Your task to perform on an android device: Clear all items from cart on ebay. Search for "acer nitro" on ebay, select the first entry, add it to the cart, then select checkout. Image 0: 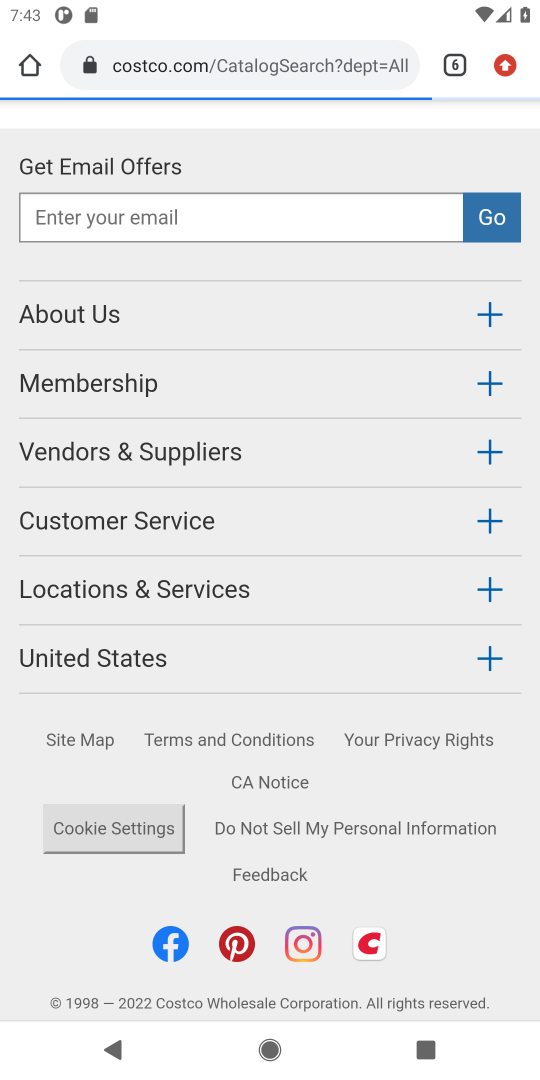
Step 0: press home button
Your task to perform on an android device: Clear all items from cart on ebay. Search for "acer nitro" on ebay, select the first entry, add it to the cart, then select checkout. Image 1: 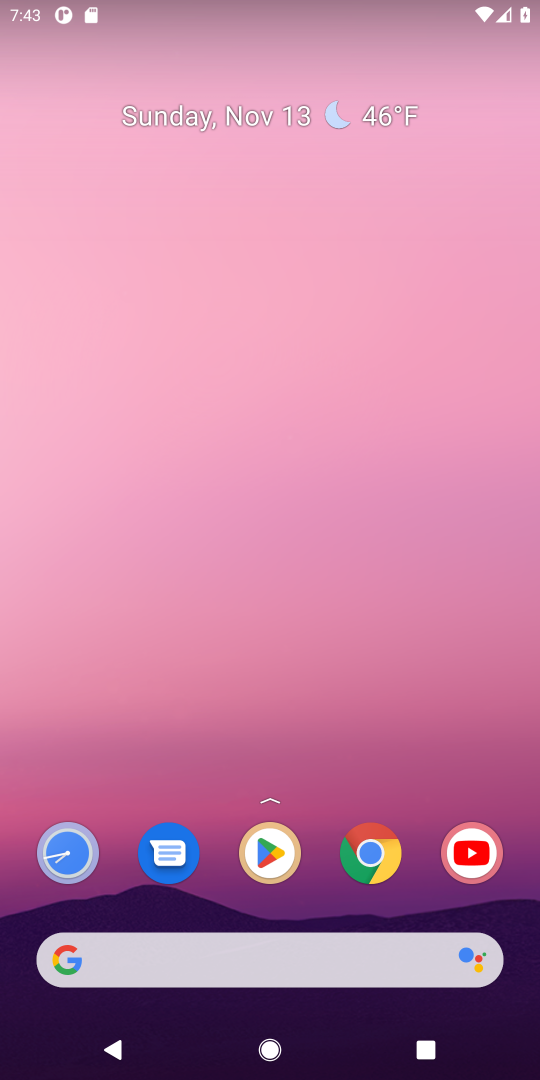
Step 1: click (90, 956)
Your task to perform on an android device: Clear all items from cart on ebay. Search for "acer nitro" on ebay, select the first entry, add it to the cart, then select checkout. Image 2: 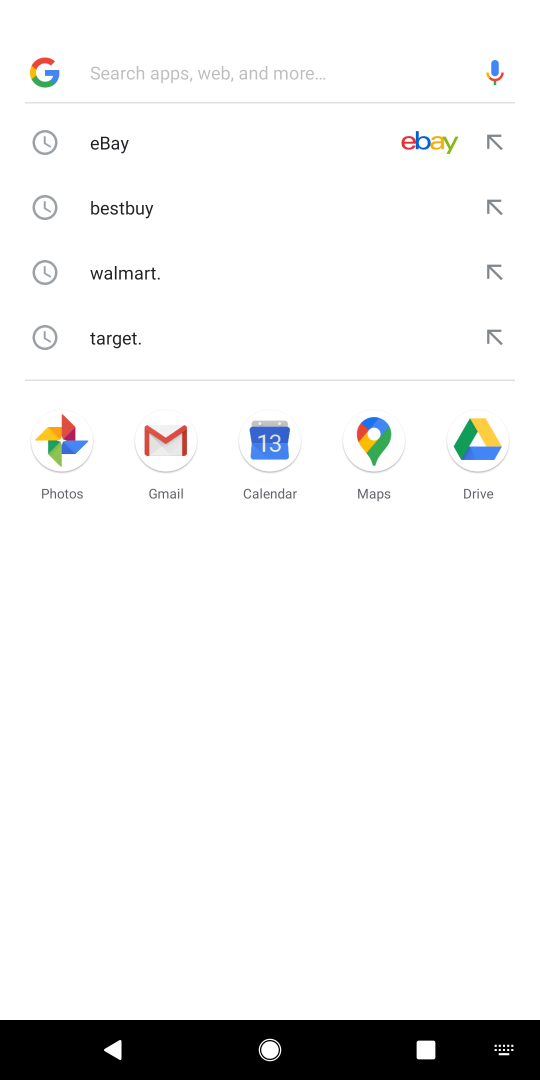
Step 2: click (141, 145)
Your task to perform on an android device: Clear all items from cart on ebay. Search for "acer nitro" on ebay, select the first entry, add it to the cart, then select checkout. Image 3: 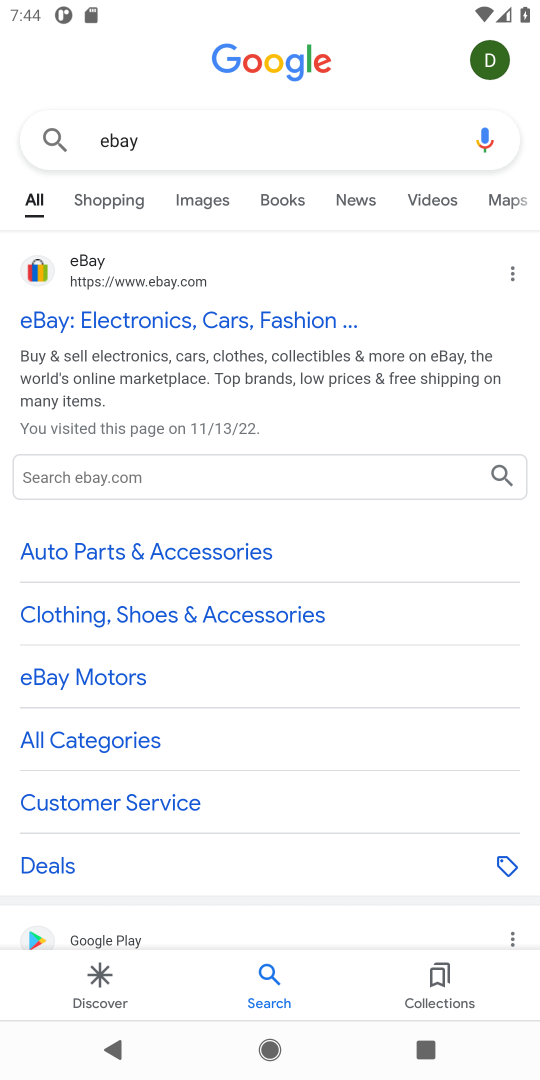
Step 3: click (229, 318)
Your task to perform on an android device: Clear all items from cart on ebay. Search for "acer nitro" on ebay, select the first entry, add it to the cart, then select checkout. Image 4: 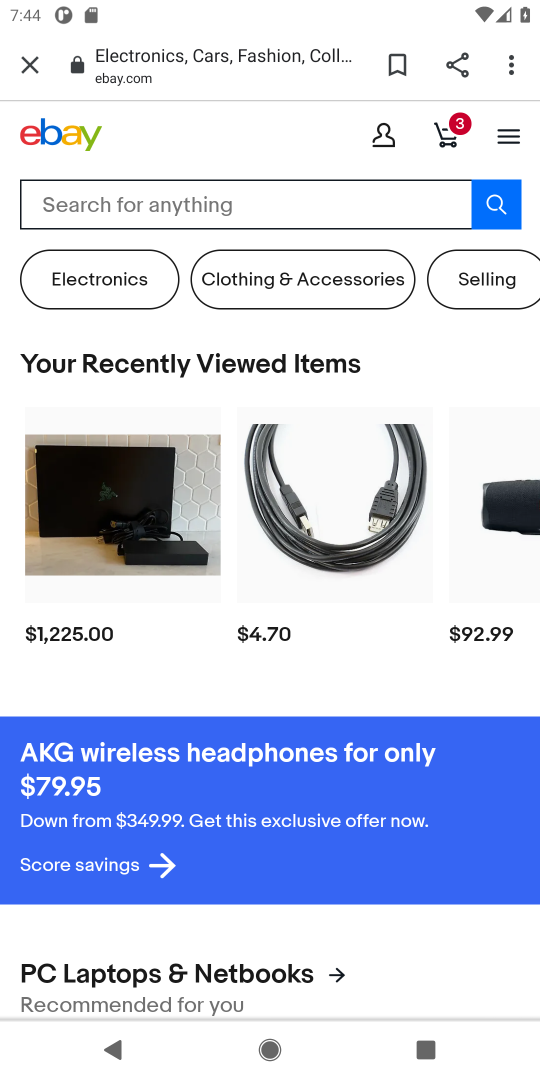
Step 4: click (453, 130)
Your task to perform on an android device: Clear all items from cart on ebay. Search for "acer nitro" on ebay, select the first entry, add it to the cart, then select checkout. Image 5: 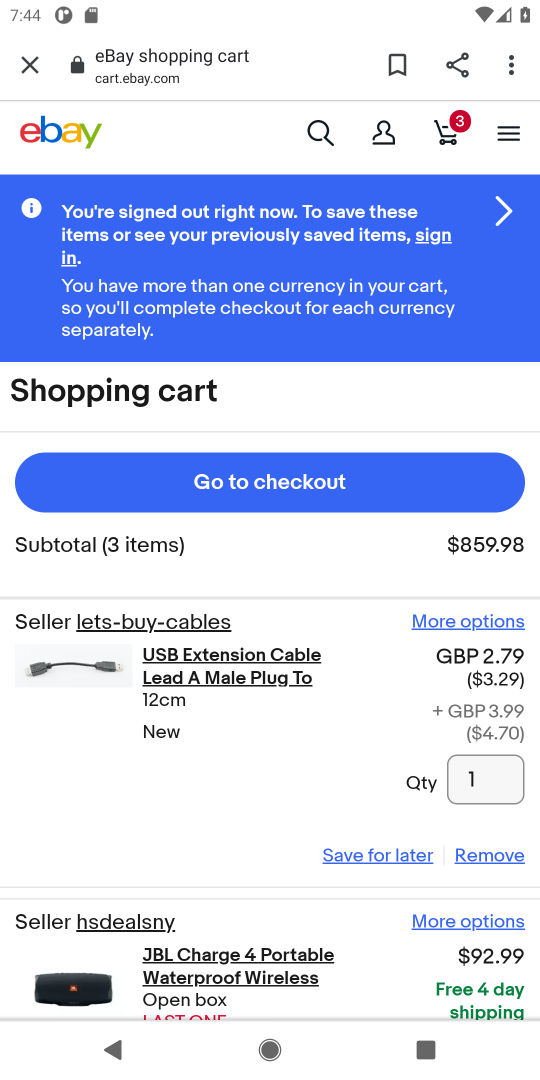
Step 5: click (503, 857)
Your task to perform on an android device: Clear all items from cart on ebay. Search for "acer nitro" on ebay, select the first entry, add it to the cart, then select checkout. Image 6: 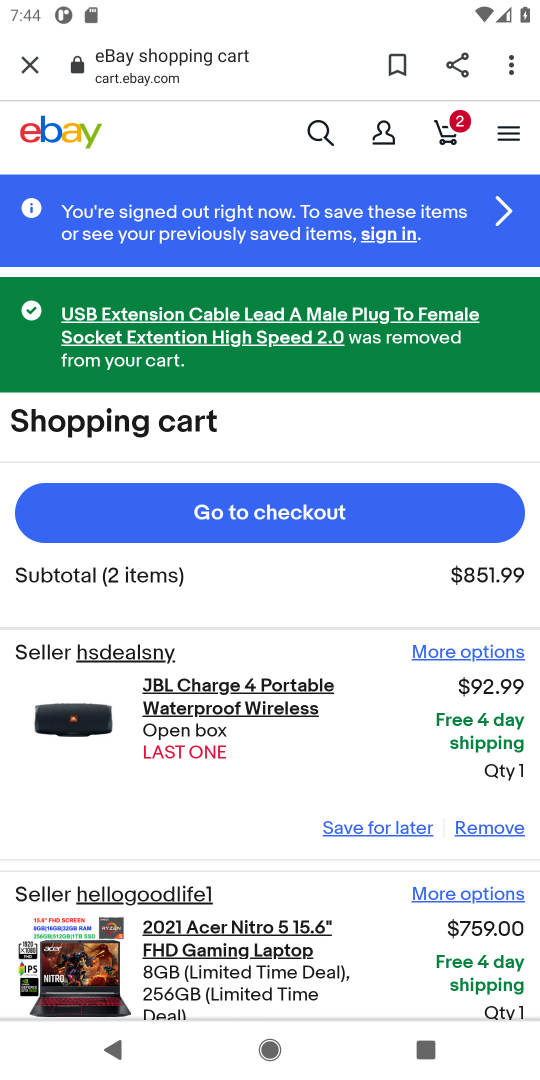
Step 6: click (486, 830)
Your task to perform on an android device: Clear all items from cart on ebay. Search for "acer nitro" on ebay, select the first entry, add it to the cart, then select checkout. Image 7: 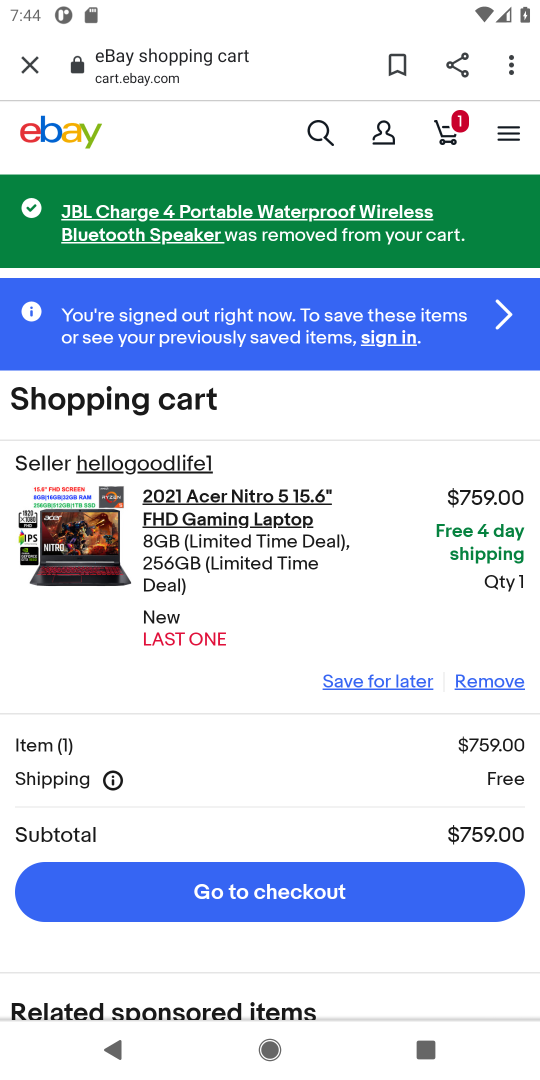
Step 7: click (474, 673)
Your task to perform on an android device: Clear all items from cart on ebay. Search for "acer nitro" on ebay, select the first entry, add it to the cart, then select checkout. Image 8: 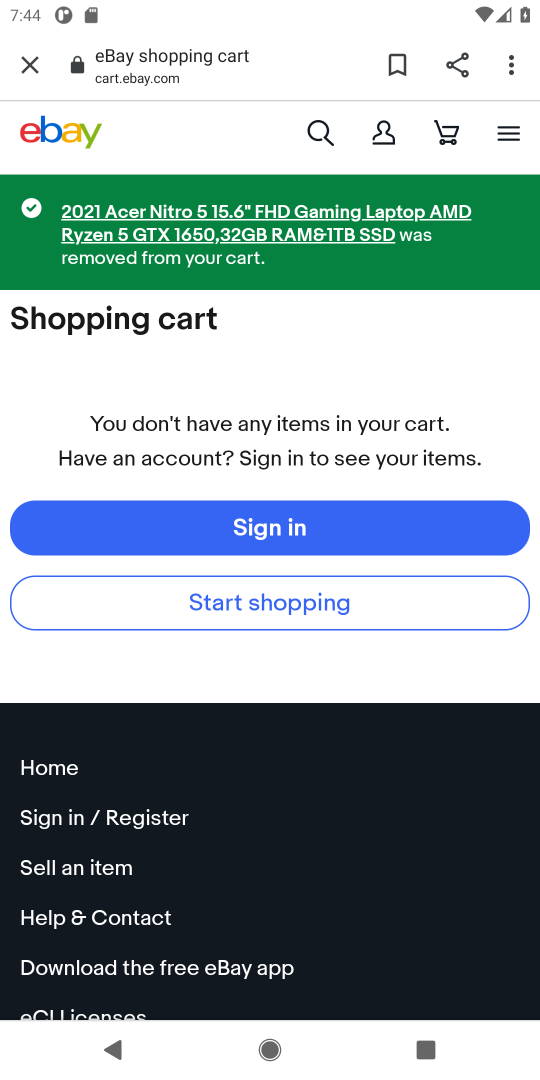
Step 8: click (318, 129)
Your task to perform on an android device: Clear all items from cart on ebay. Search for "acer nitro" on ebay, select the first entry, add it to the cart, then select checkout. Image 9: 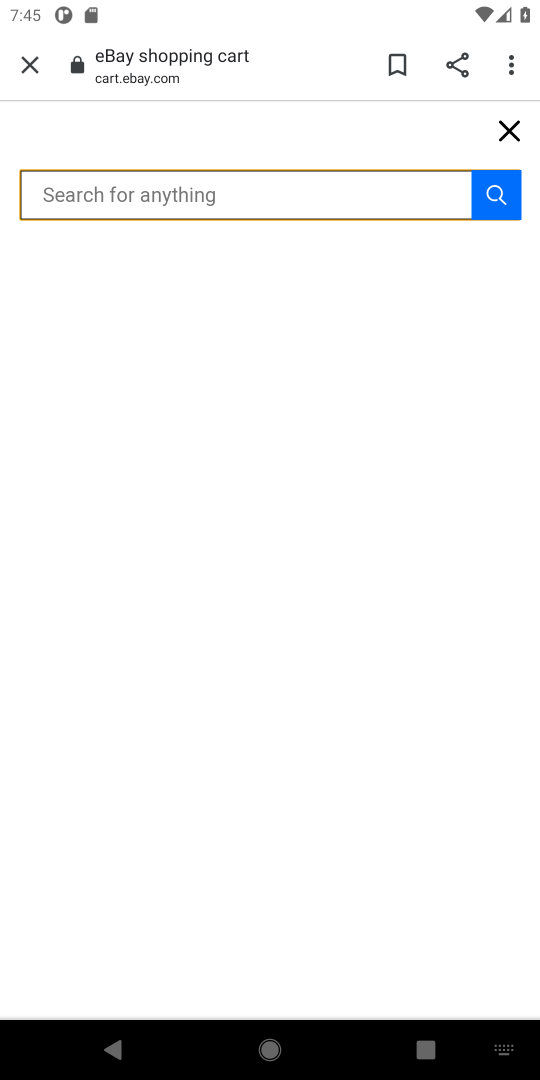
Step 9: type "acer nitro"
Your task to perform on an android device: Clear all items from cart on ebay. Search for "acer nitro" on ebay, select the first entry, add it to the cart, then select checkout. Image 10: 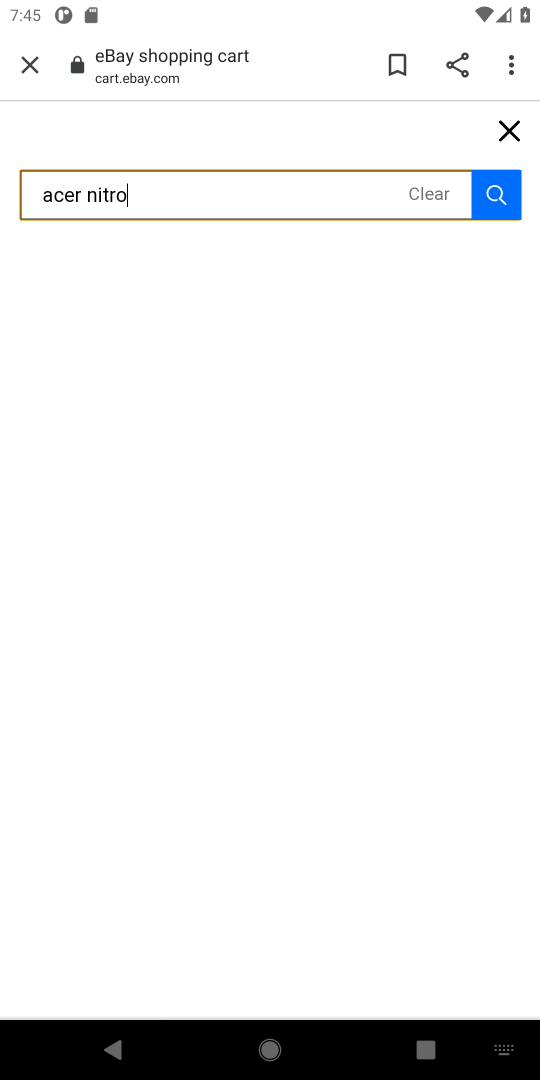
Step 10: press enter
Your task to perform on an android device: Clear all items from cart on ebay. Search for "acer nitro" on ebay, select the first entry, add it to the cart, then select checkout. Image 11: 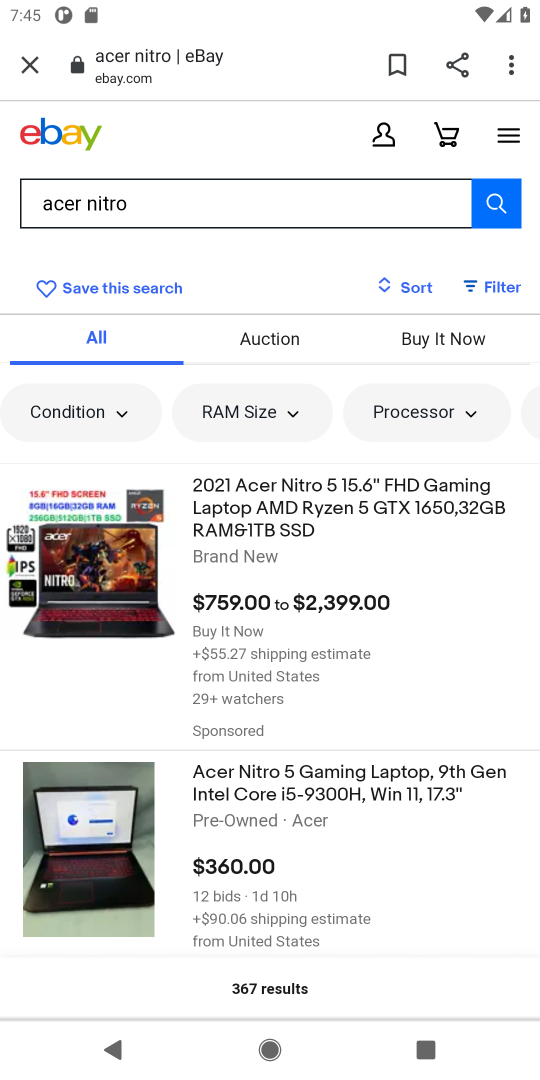
Step 11: click (295, 518)
Your task to perform on an android device: Clear all items from cart on ebay. Search for "acer nitro" on ebay, select the first entry, add it to the cart, then select checkout. Image 12: 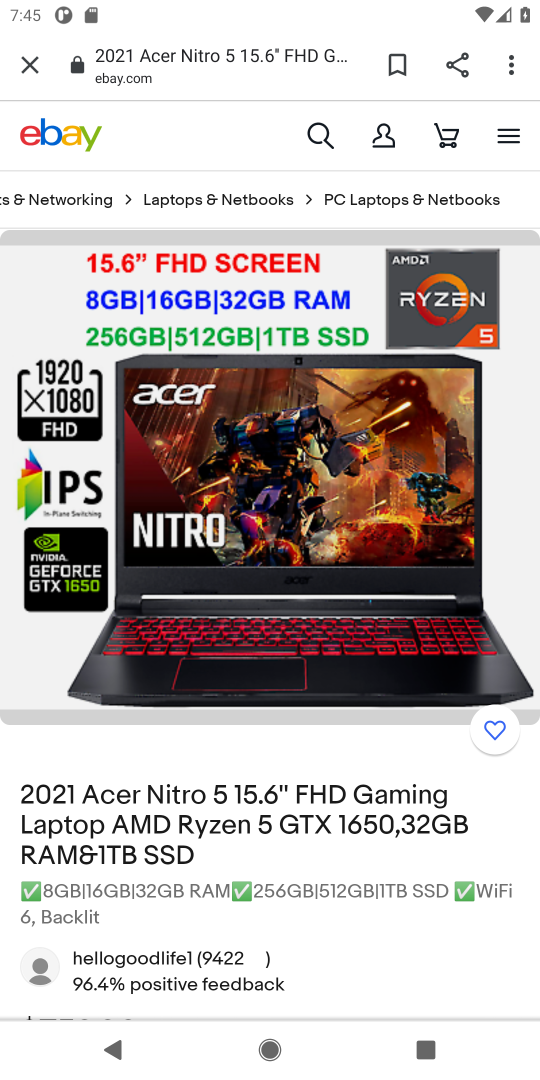
Step 12: drag from (334, 877) to (342, 503)
Your task to perform on an android device: Clear all items from cart on ebay. Search for "acer nitro" on ebay, select the first entry, add it to the cart, then select checkout. Image 13: 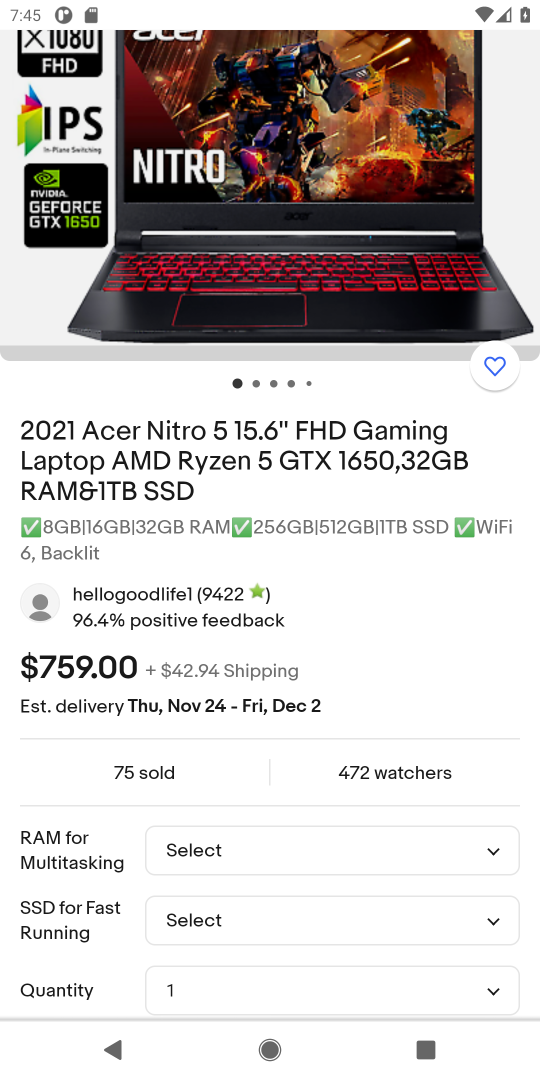
Step 13: drag from (280, 867) to (322, 411)
Your task to perform on an android device: Clear all items from cart on ebay. Search for "acer nitro" on ebay, select the first entry, add it to the cart, then select checkout. Image 14: 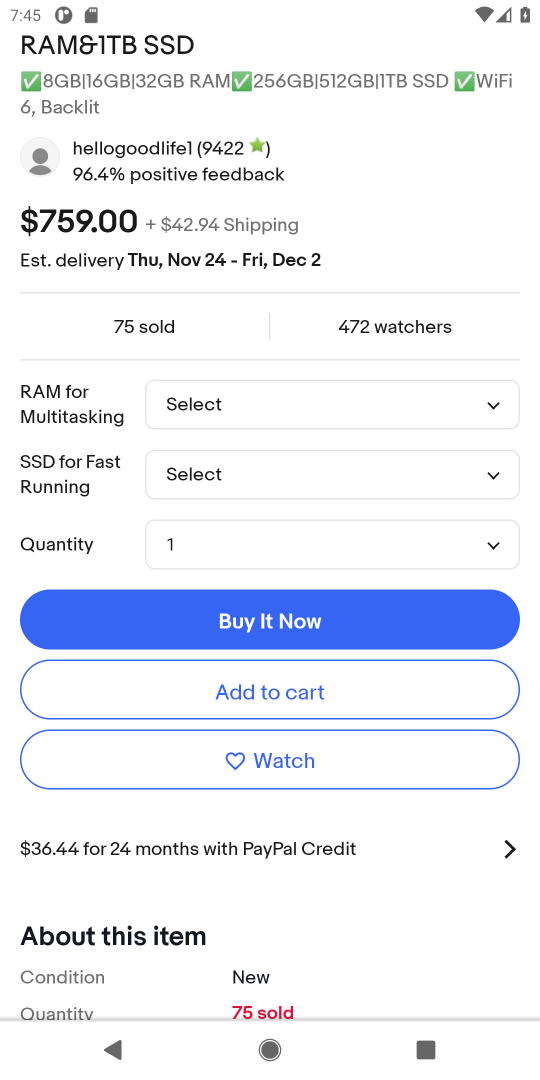
Step 14: click (246, 693)
Your task to perform on an android device: Clear all items from cart on ebay. Search for "acer nitro" on ebay, select the first entry, add it to the cart, then select checkout. Image 15: 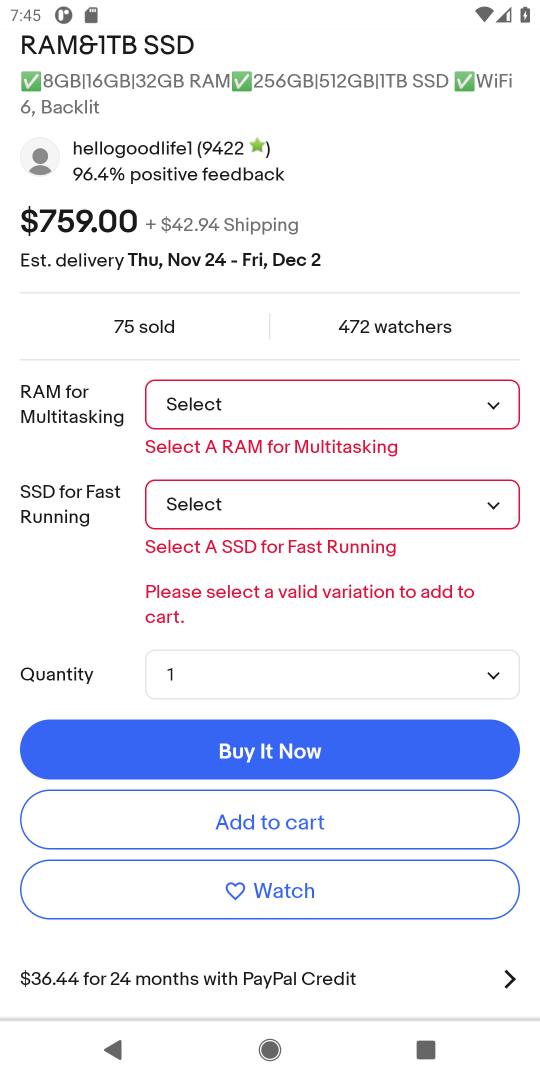
Step 15: click (498, 399)
Your task to perform on an android device: Clear all items from cart on ebay. Search for "acer nitro" on ebay, select the first entry, add it to the cart, then select checkout. Image 16: 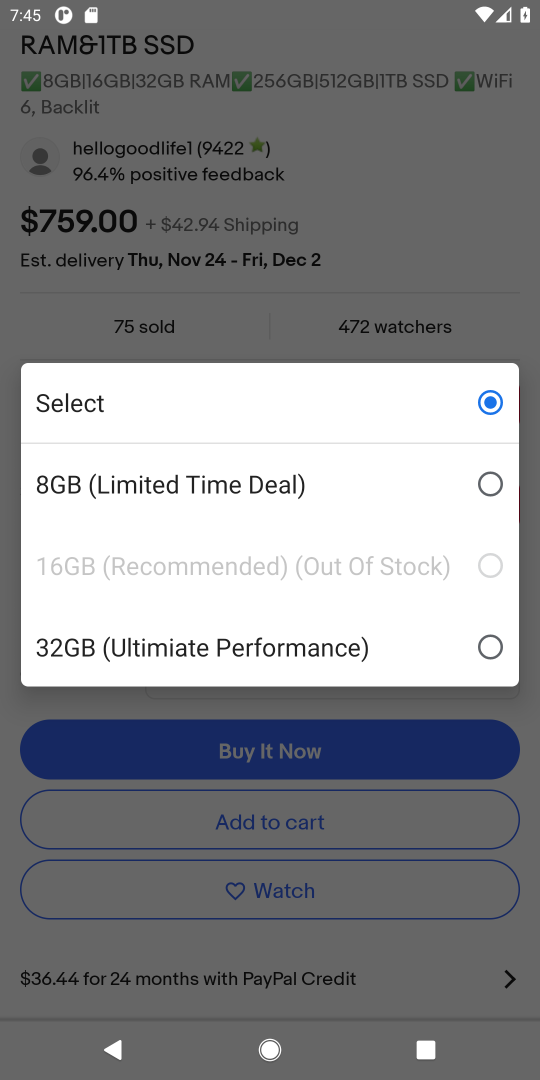
Step 16: click (490, 482)
Your task to perform on an android device: Clear all items from cart on ebay. Search for "acer nitro" on ebay, select the first entry, add it to the cart, then select checkout. Image 17: 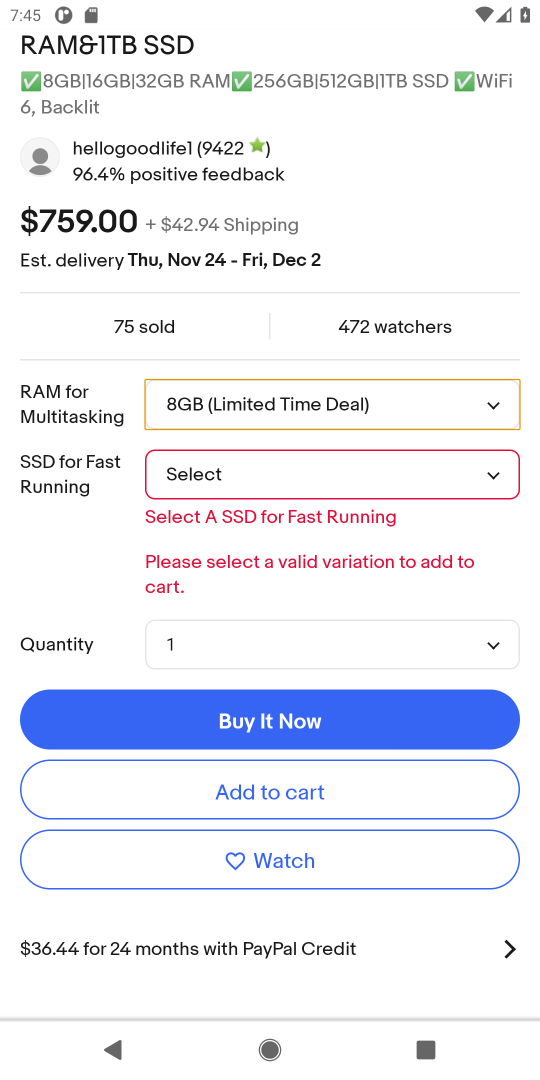
Step 17: click (490, 482)
Your task to perform on an android device: Clear all items from cart on ebay. Search for "acer nitro" on ebay, select the first entry, add it to the cart, then select checkout. Image 18: 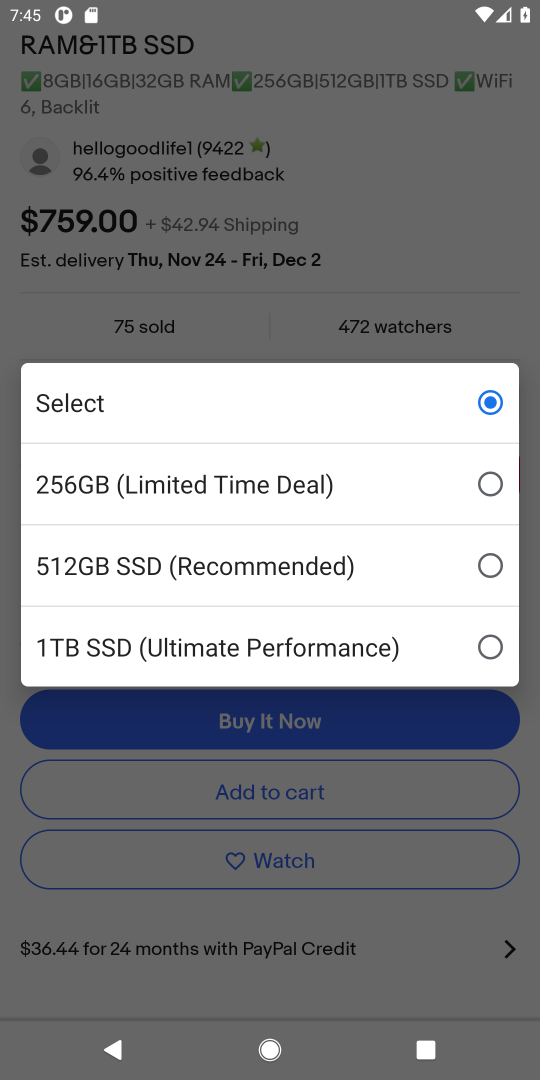
Step 18: click (490, 482)
Your task to perform on an android device: Clear all items from cart on ebay. Search for "acer nitro" on ebay, select the first entry, add it to the cart, then select checkout. Image 19: 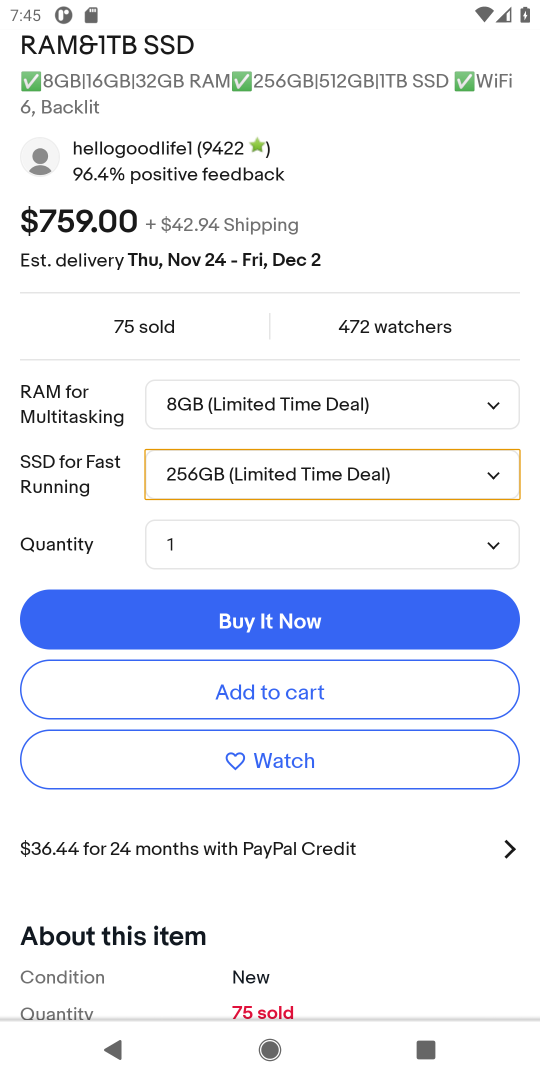
Step 19: click (252, 691)
Your task to perform on an android device: Clear all items from cart on ebay. Search for "acer nitro" on ebay, select the first entry, add it to the cart, then select checkout. Image 20: 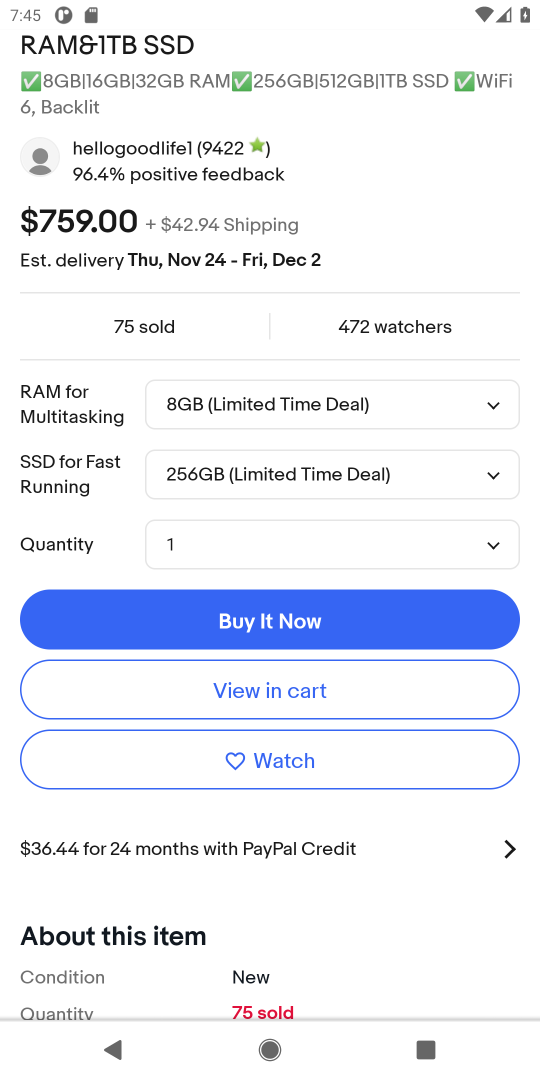
Step 20: task complete